Your task to perform on an android device: toggle translation in the chrome app Image 0: 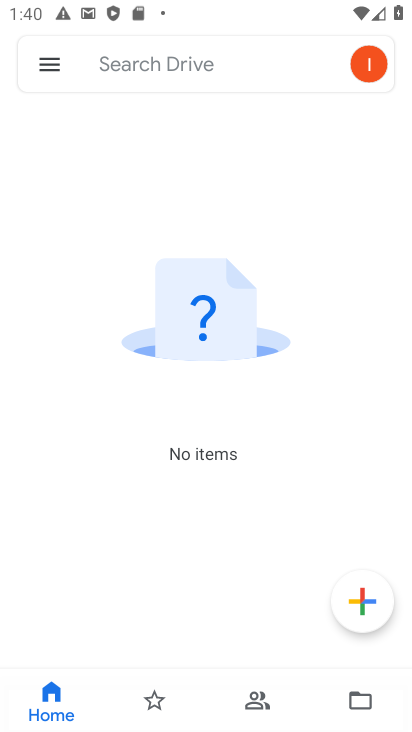
Step 0: press home button
Your task to perform on an android device: toggle translation in the chrome app Image 1: 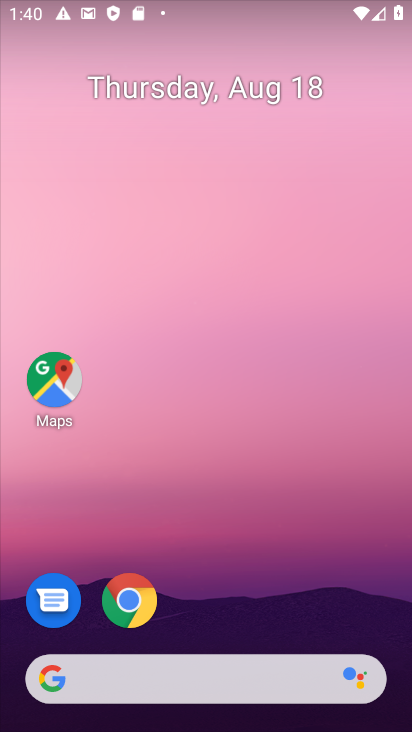
Step 1: click (122, 612)
Your task to perform on an android device: toggle translation in the chrome app Image 2: 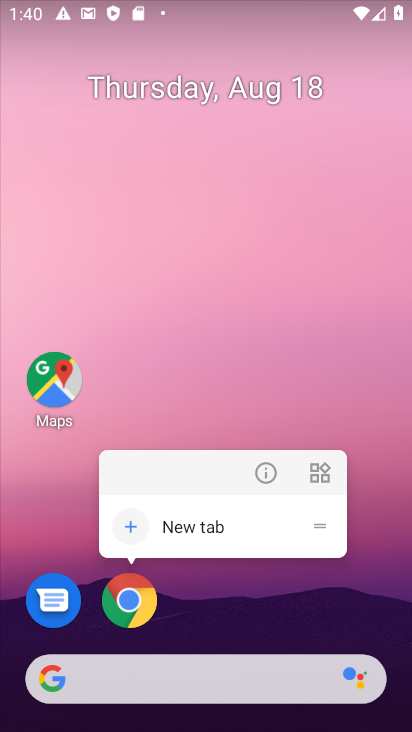
Step 2: click (114, 621)
Your task to perform on an android device: toggle translation in the chrome app Image 3: 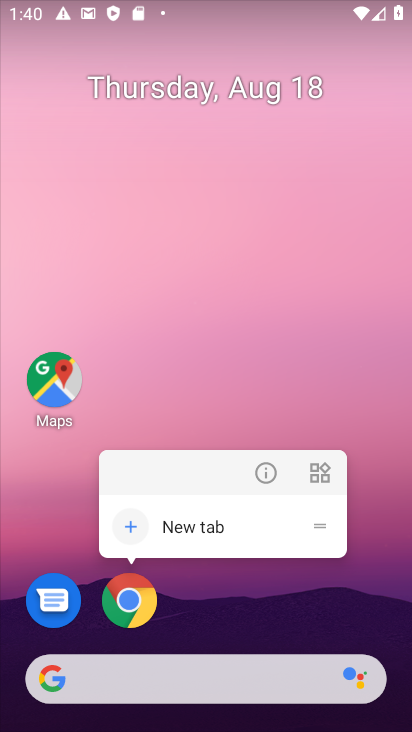
Step 3: click (114, 618)
Your task to perform on an android device: toggle translation in the chrome app Image 4: 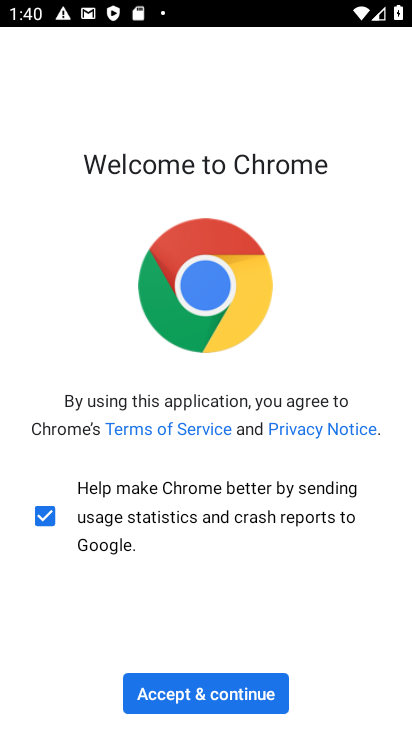
Step 4: click (197, 703)
Your task to perform on an android device: toggle translation in the chrome app Image 5: 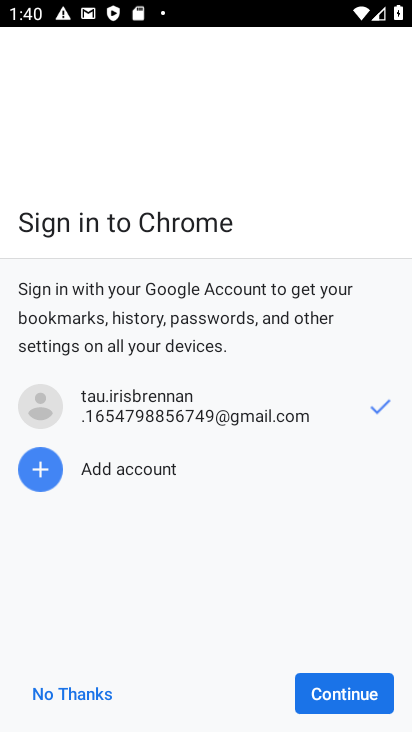
Step 5: click (348, 701)
Your task to perform on an android device: toggle translation in the chrome app Image 6: 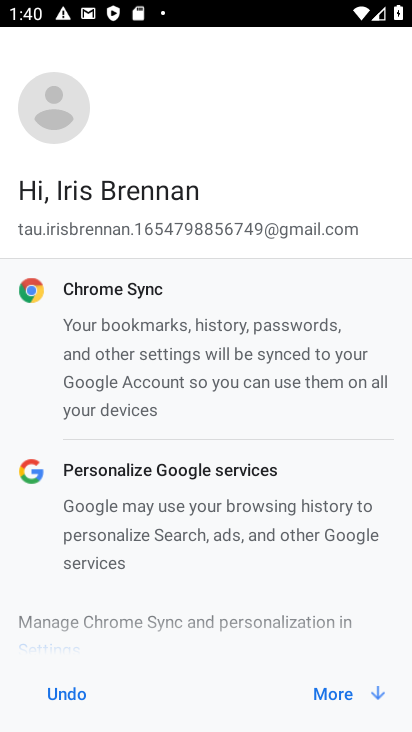
Step 6: click (348, 701)
Your task to perform on an android device: toggle translation in the chrome app Image 7: 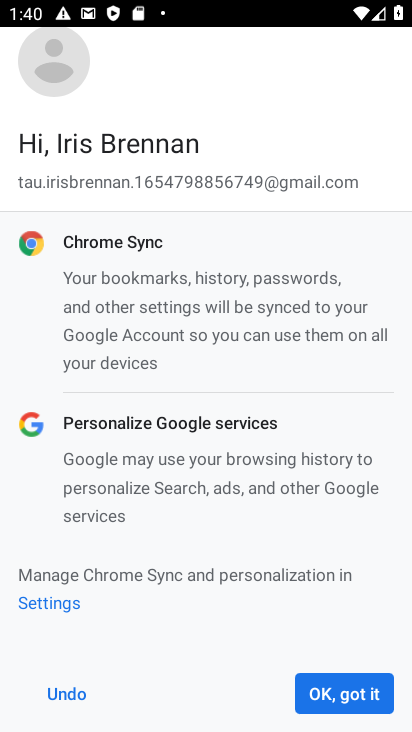
Step 7: click (348, 701)
Your task to perform on an android device: toggle translation in the chrome app Image 8: 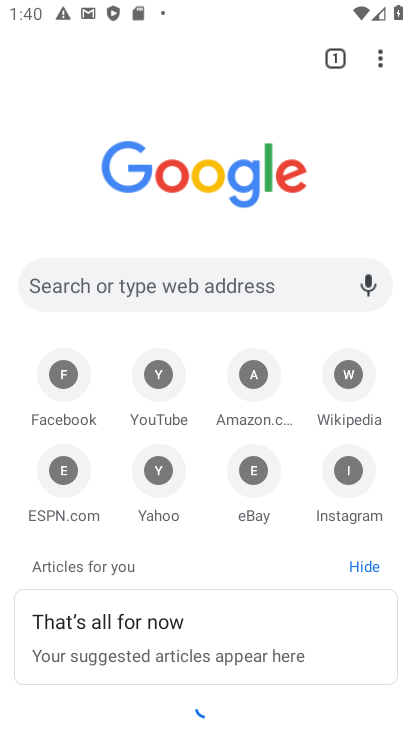
Step 8: drag from (384, 60) to (196, 492)
Your task to perform on an android device: toggle translation in the chrome app Image 9: 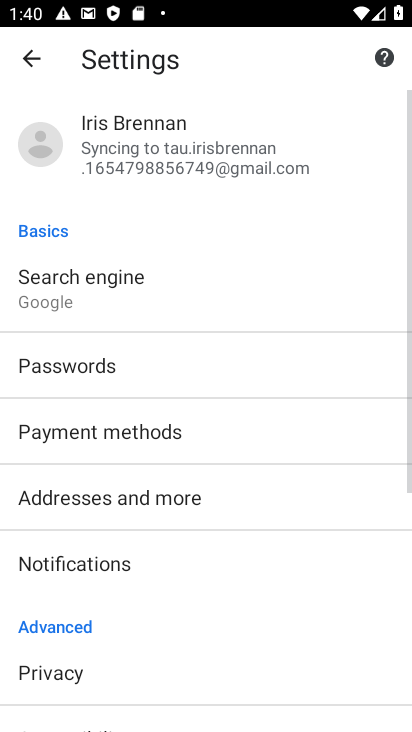
Step 9: drag from (166, 637) to (182, 245)
Your task to perform on an android device: toggle translation in the chrome app Image 10: 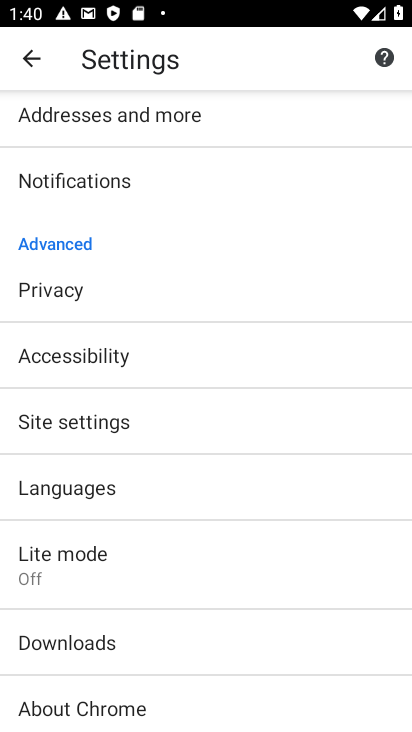
Step 10: click (114, 493)
Your task to perform on an android device: toggle translation in the chrome app Image 11: 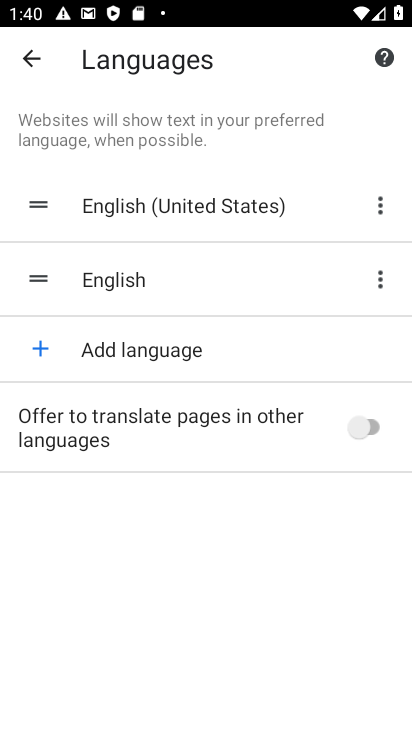
Step 11: click (360, 431)
Your task to perform on an android device: toggle translation in the chrome app Image 12: 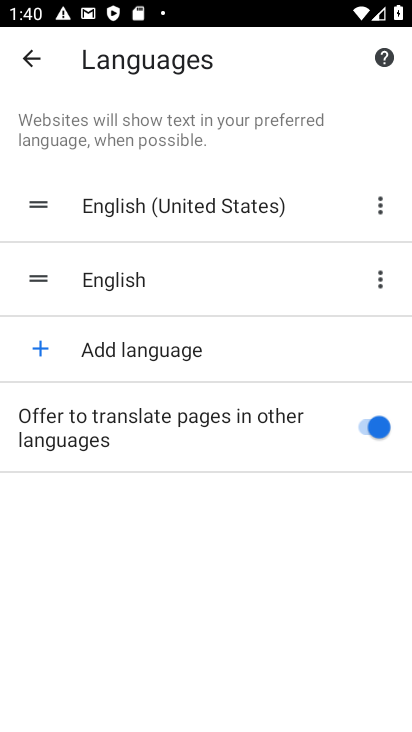
Step 12: task complete